Your task to perform on an android device: toggle improve location accuracy Image 0: 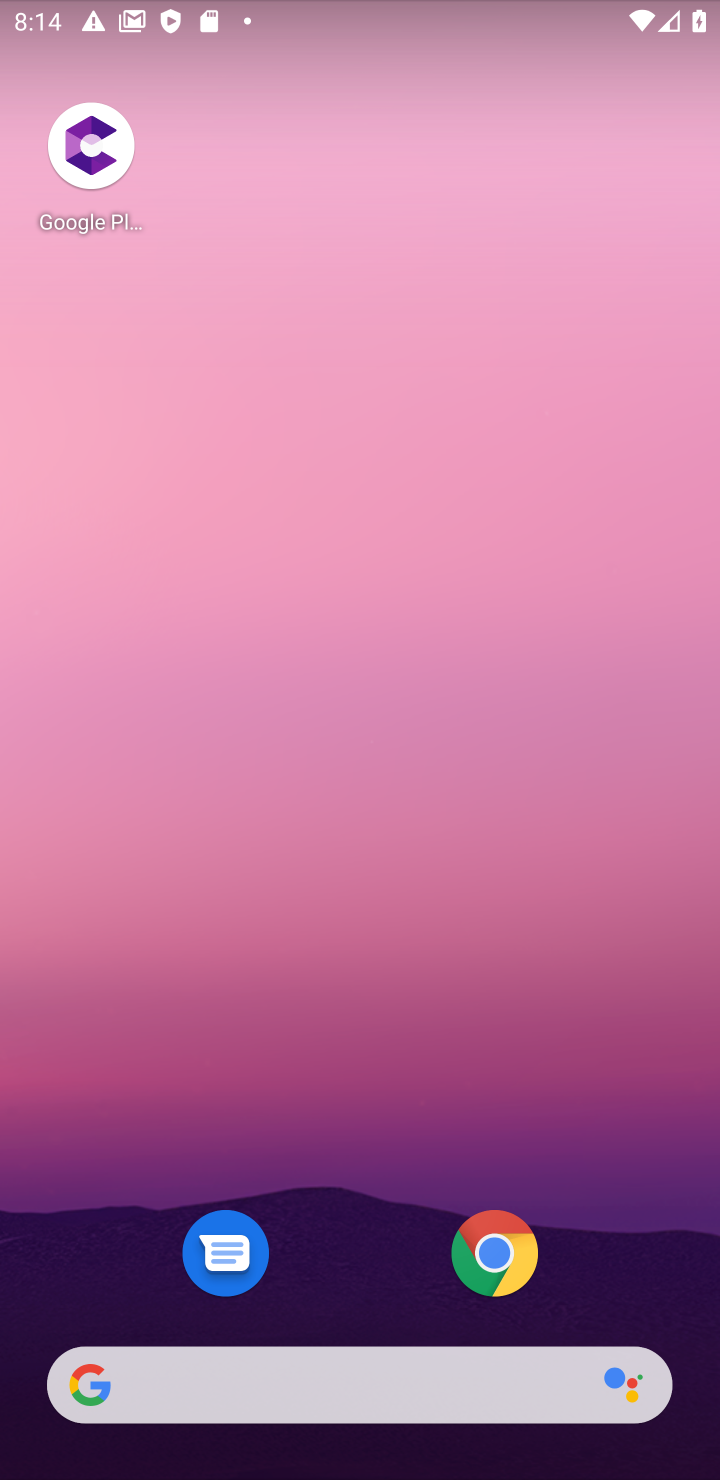
Step 0: press home button
Your task to perform on an android device: toggle improve location accuracy Image 1: 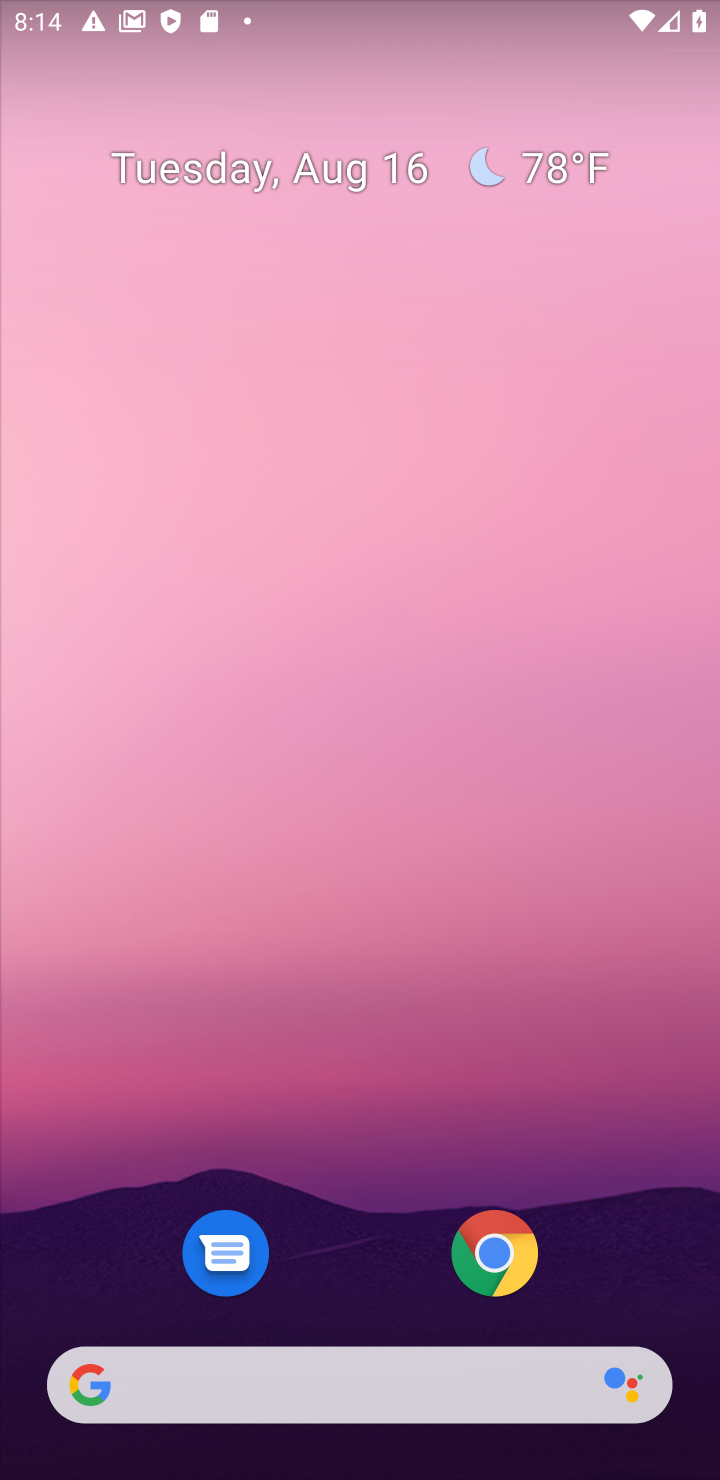
Step 1: drag from (446, 1357) to (607, 376)
Your task to perform on an android device: toggle improve location accuracy Image 2: 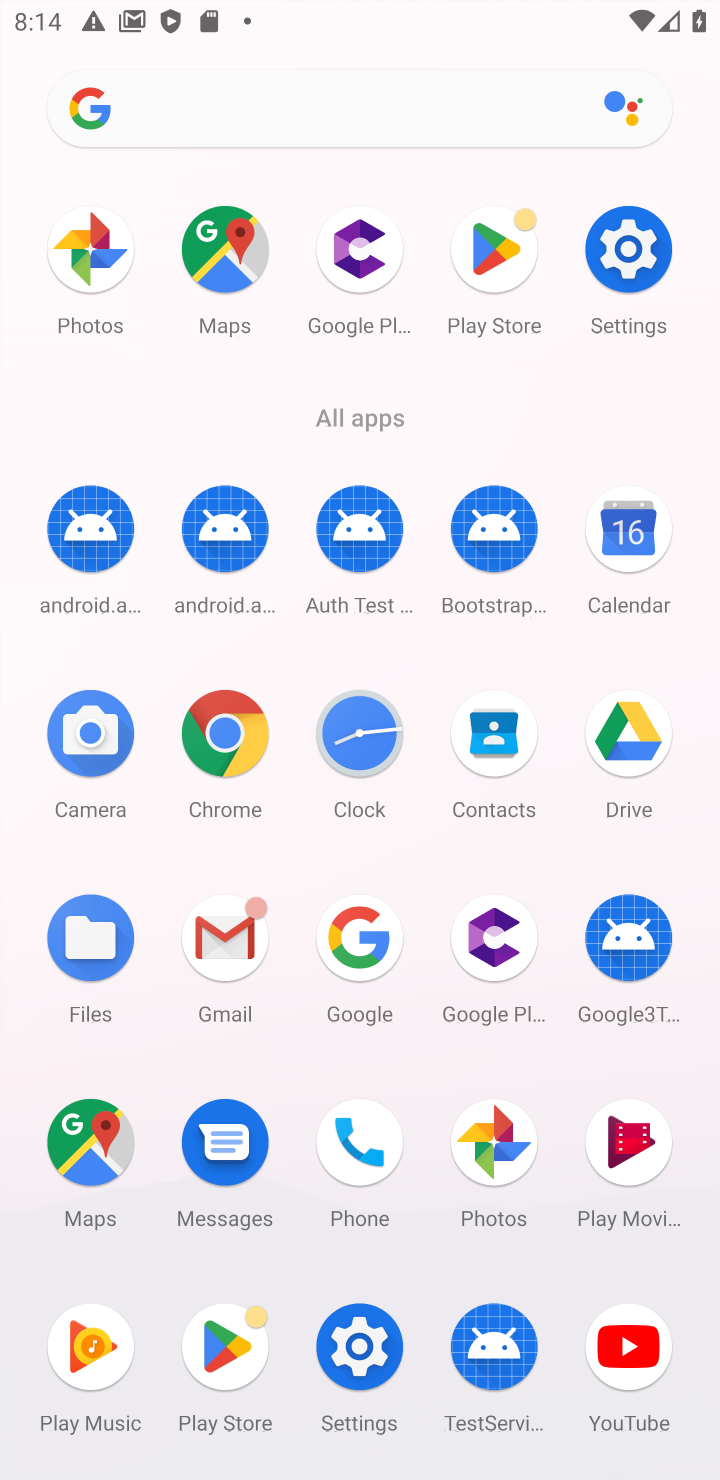
Step 2: drag from (626, 262) to (514, 951)
Your task to perform on an android device: toggle improve location accuracy Image 3: 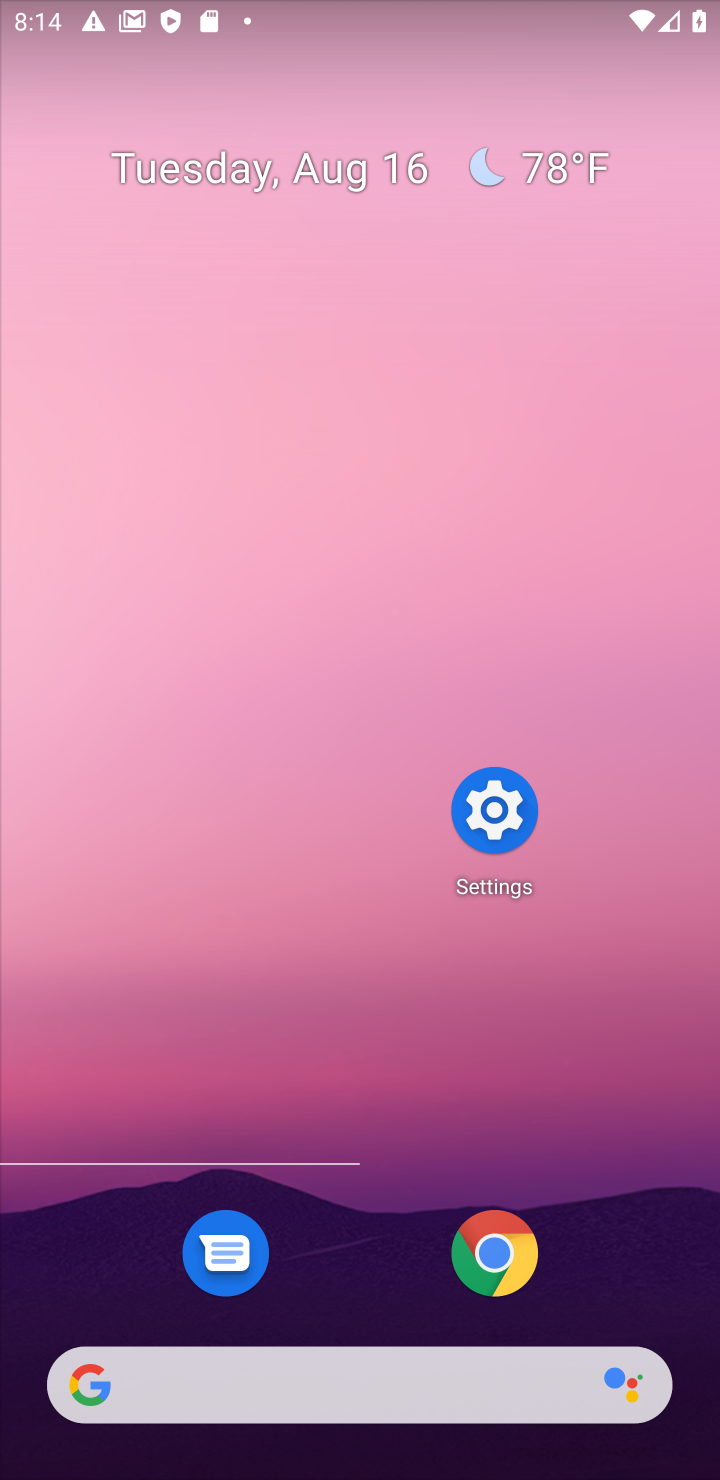
Step 3: click (494, 827)
Your task to perform on an android device: toggle improve location accuracy Image 4: 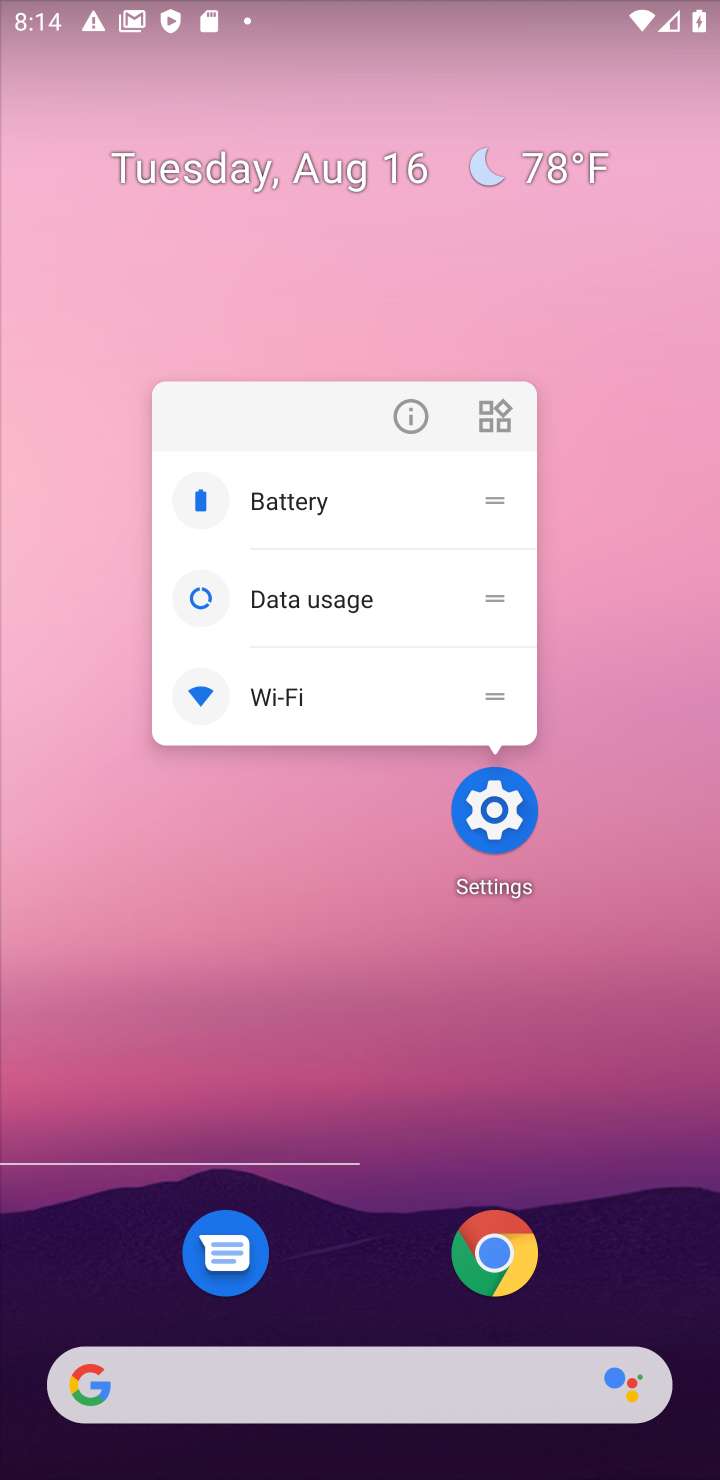
Step 4: click (494, 827)
Your task to perform on an android device: toggle improve location accuracy Image 5: 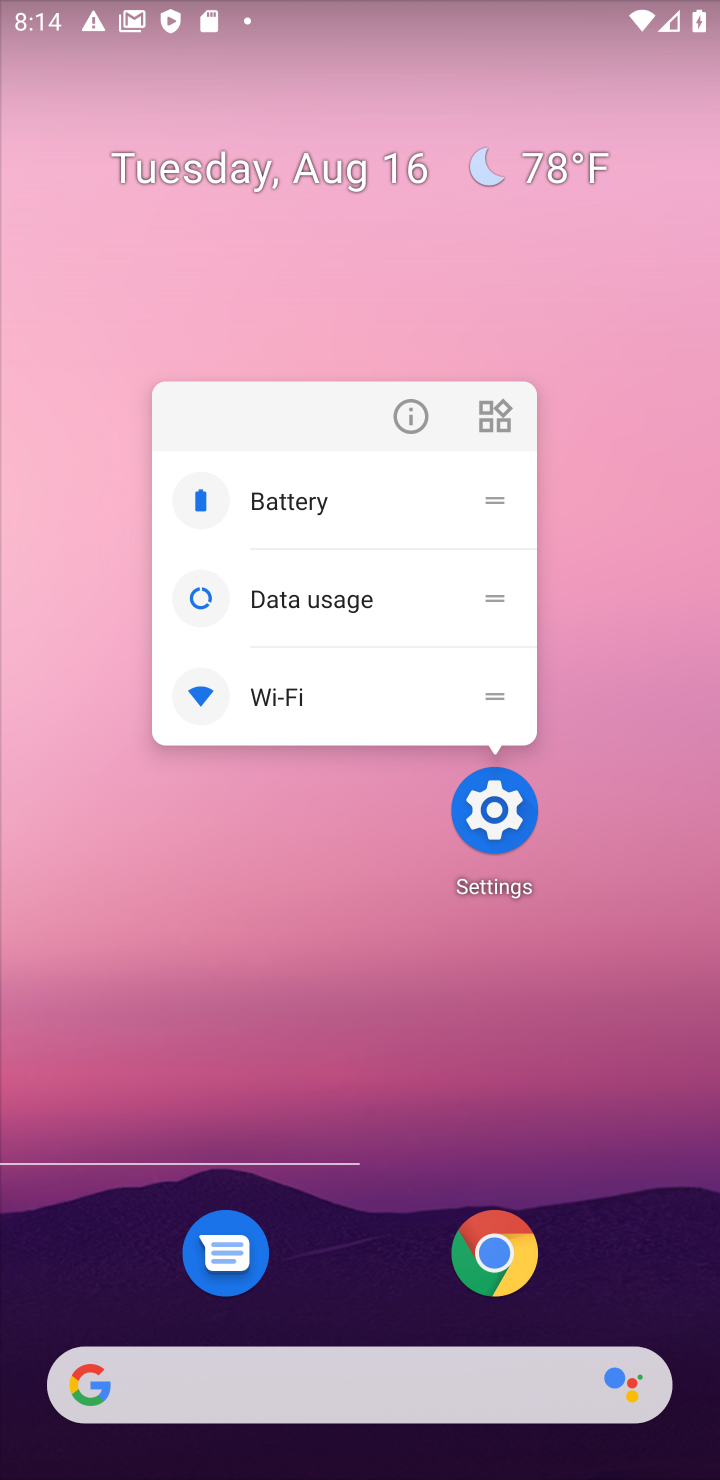
Step 5: click (494, 831)
Your task to perform on an android device: toggle improve location accuracy Image 6: 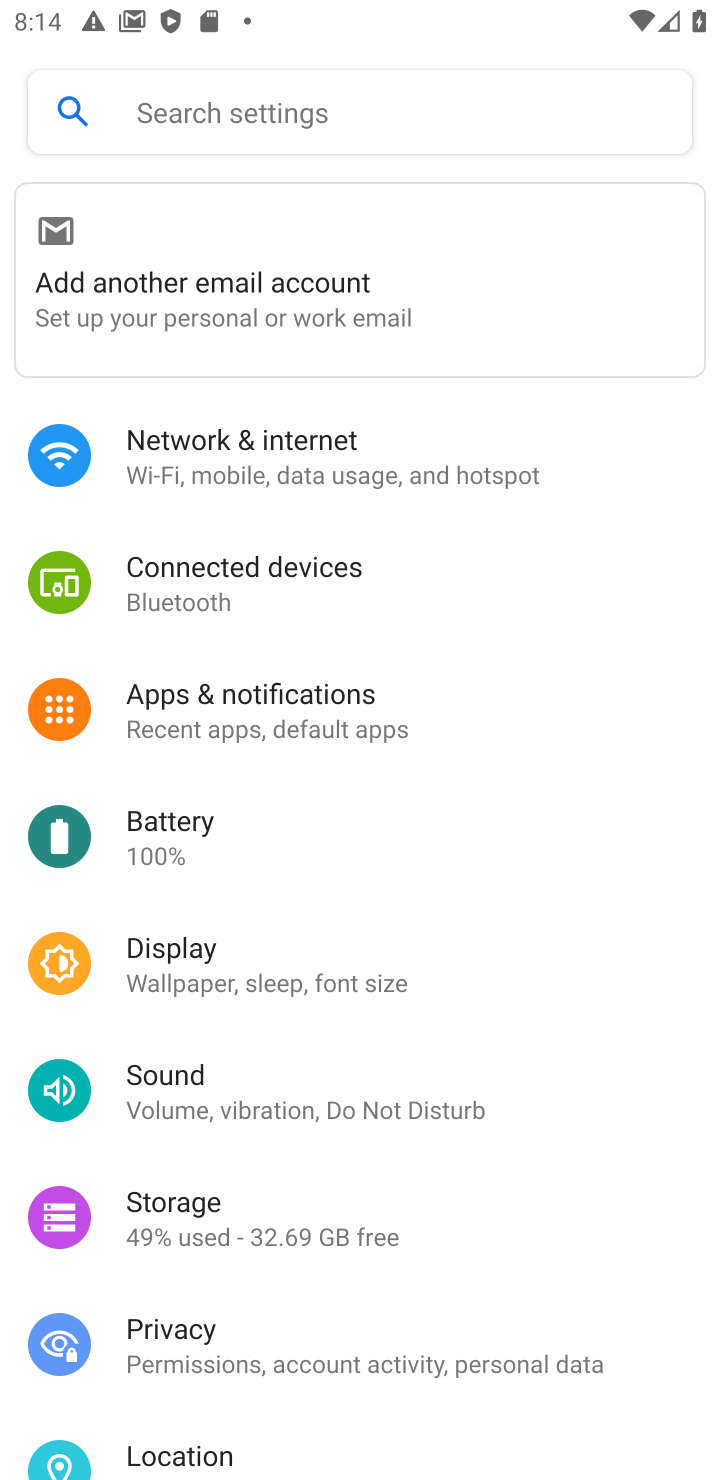
Step 6: drag from (350, 1313) to (609, 397)
Your task to perform on an android device: toggle improve location accuracy Image 7: 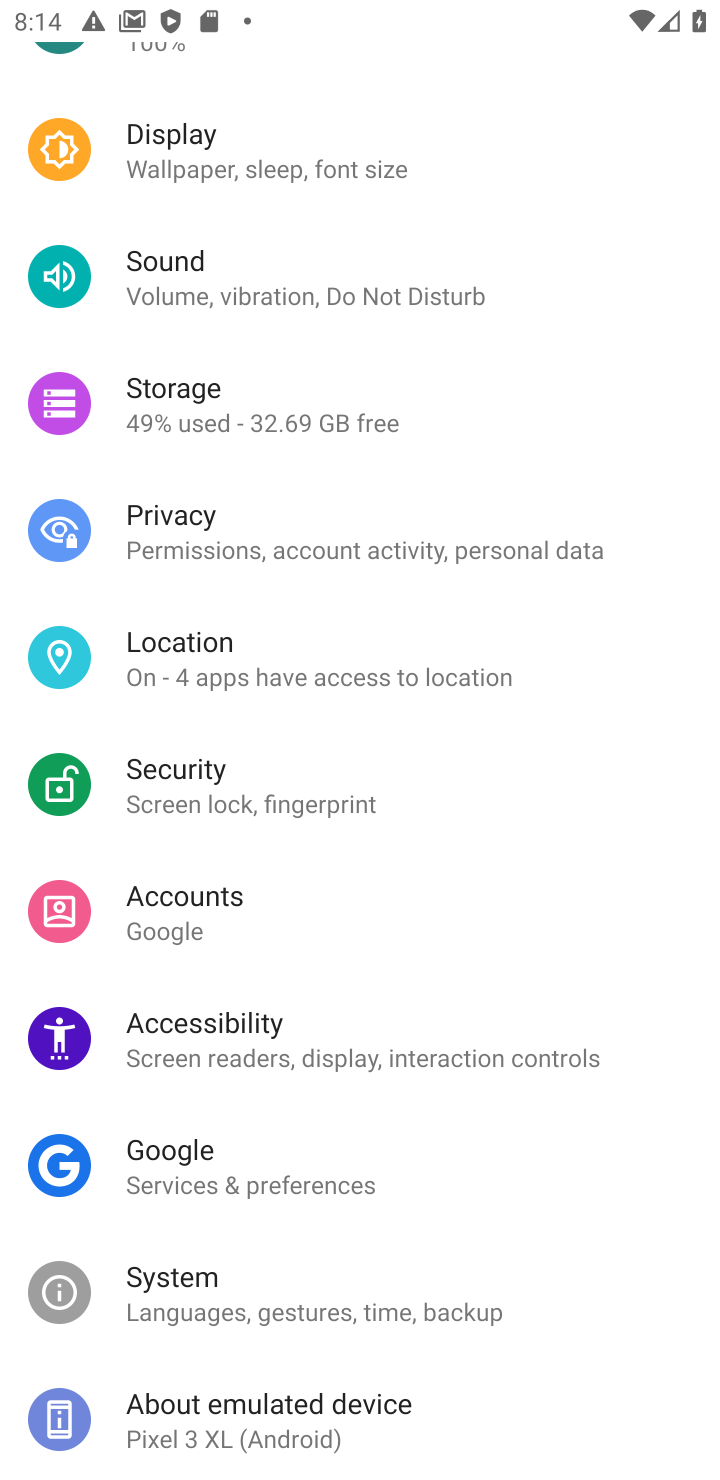
Step 7: click (215, 651)
Your task to perform on an android device: toggle improve location accuracy Image 8: 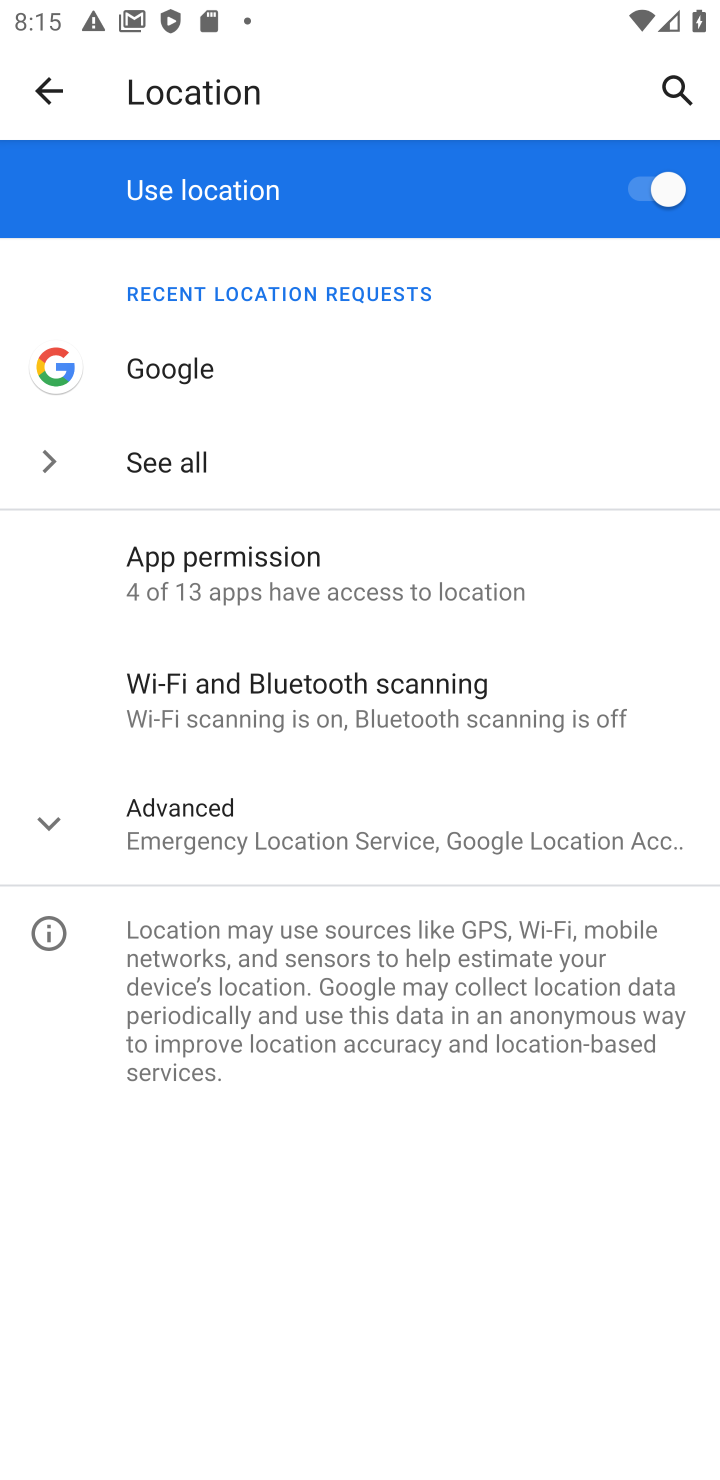
Step 8: click (240, 820)
Your task to perform on an android device: toggle improve location accuracy Image 9: 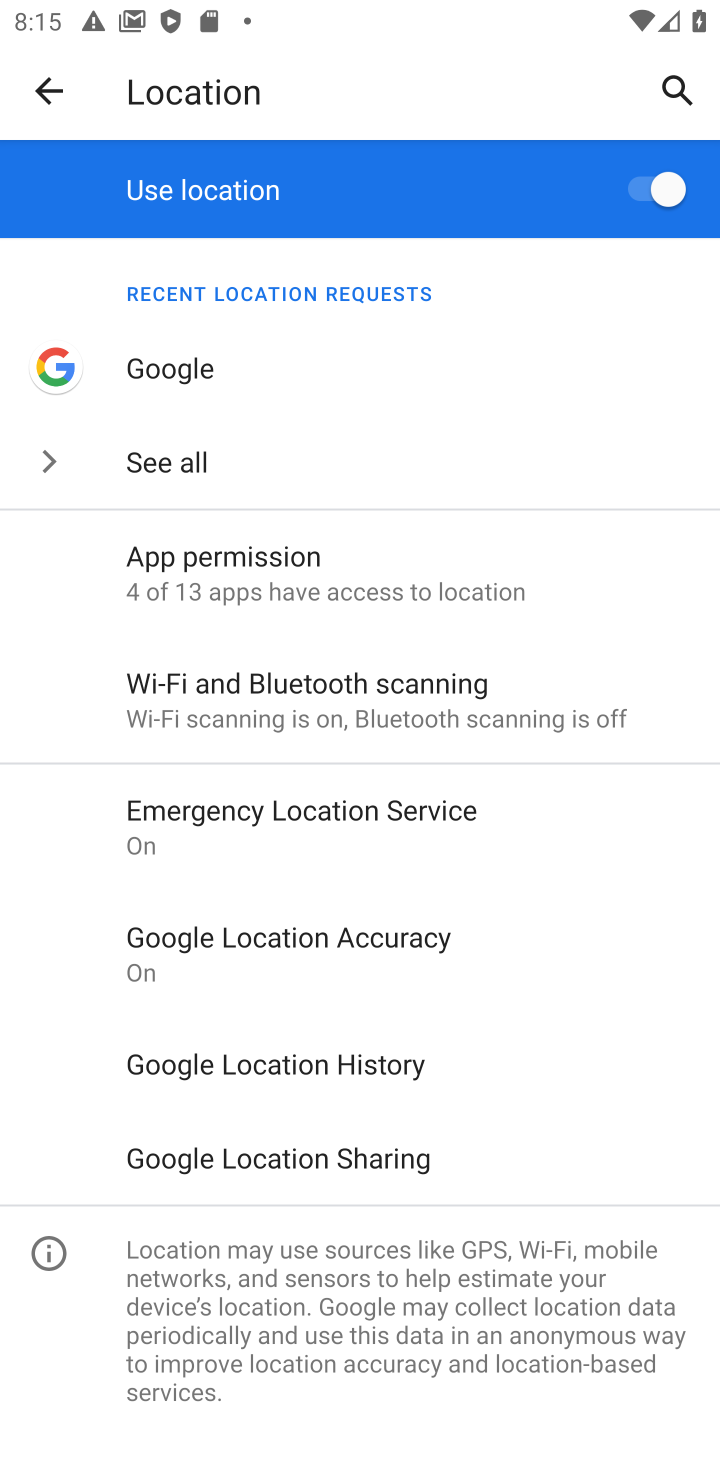
Step 9: click (324, 931)
Your task to perform on an android device: toggle improve location accuracy Image 10: 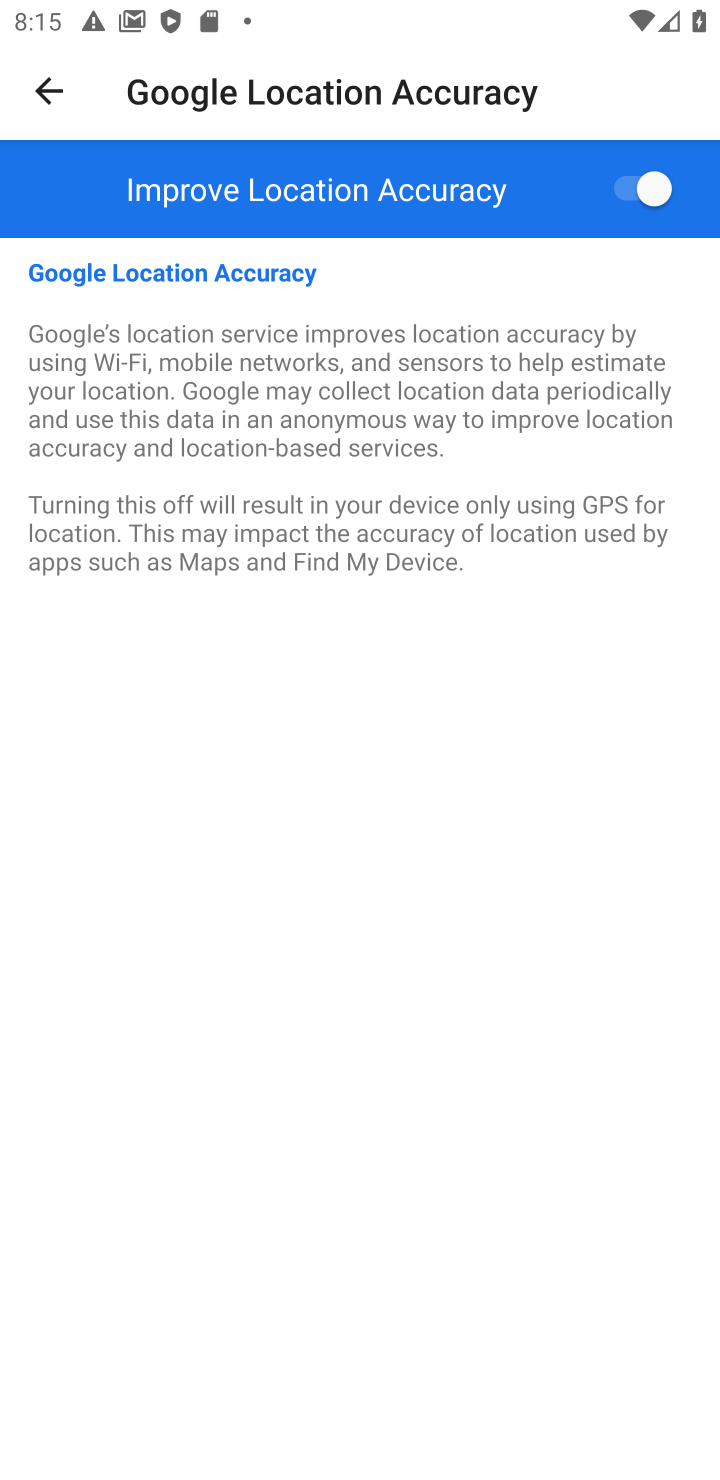
Step 10: click (633, 197)
Your task to perform on an android device: toggle improve location accuracy Image 11: 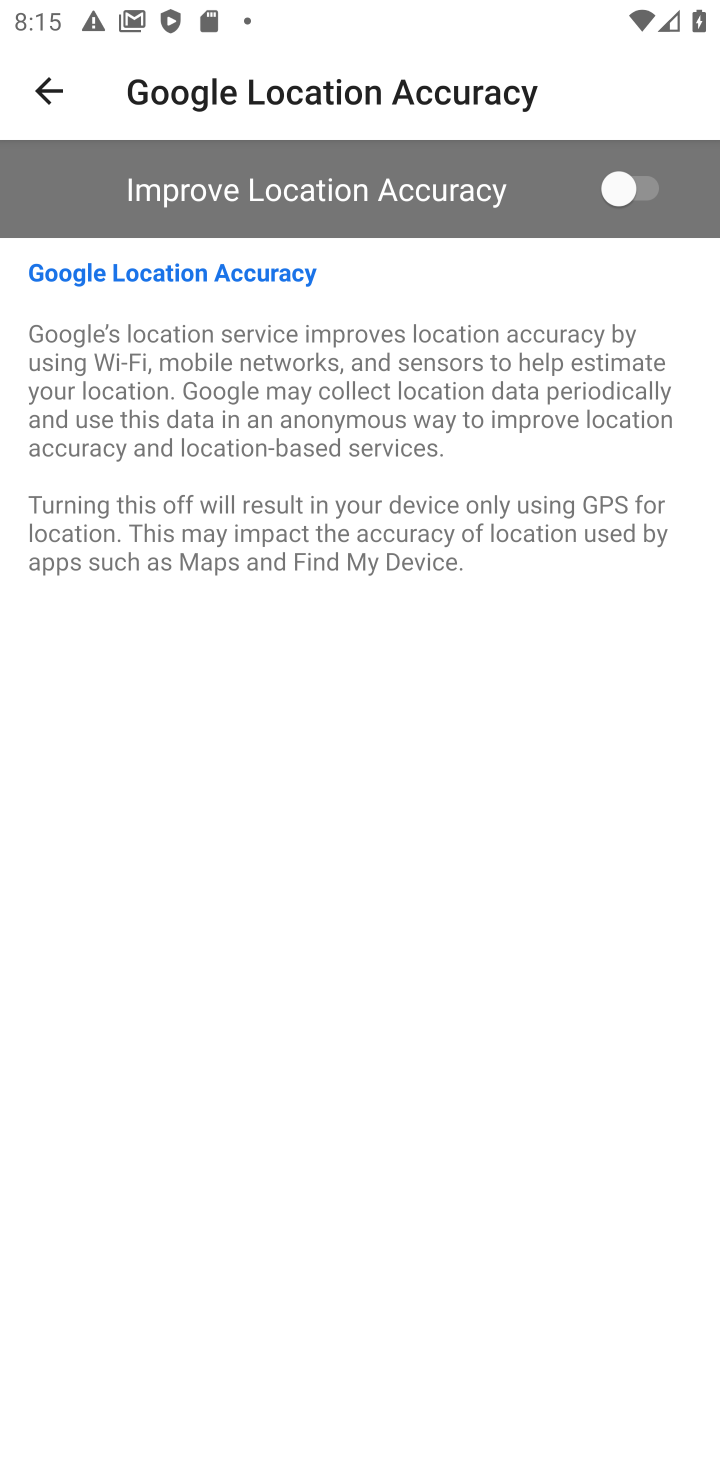
Step 11: task complete